Your task to perform on an android device: Go to Yahoo.com Image 0: 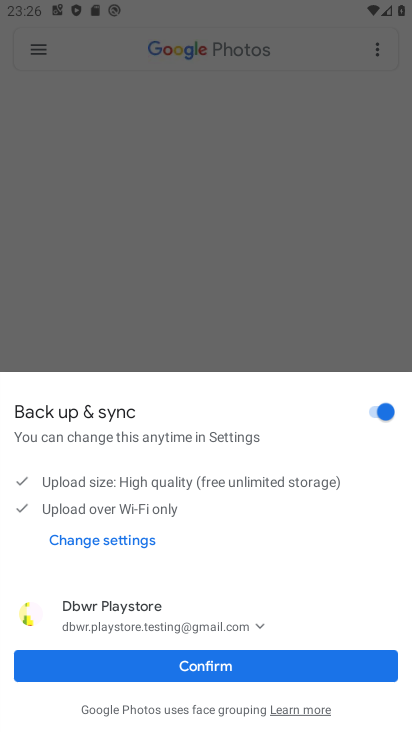
Step 0: press home button
Your task to perform on an android device: Go to Yahoo.com Image 1: 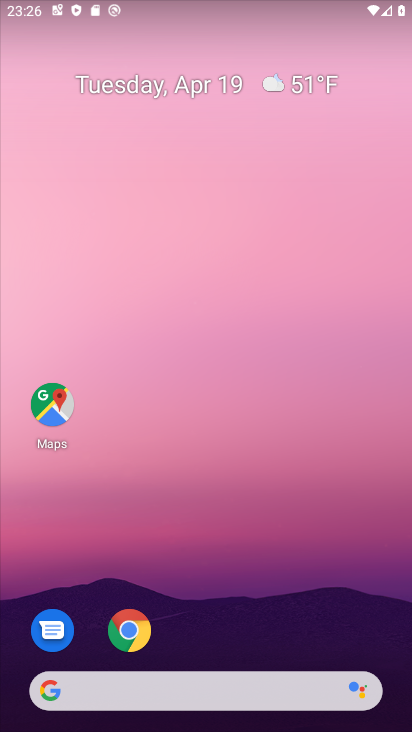
Step 1: click (145, 629)
Your task to perform on an android device: Go to Yahoo.com Image 2: 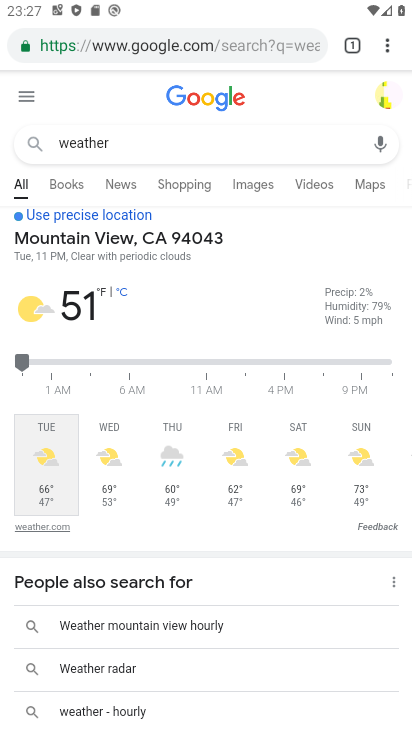
Step 2: click (239, 49)
Your task to perform on an android device: Go to Yahoo.com Image 3: 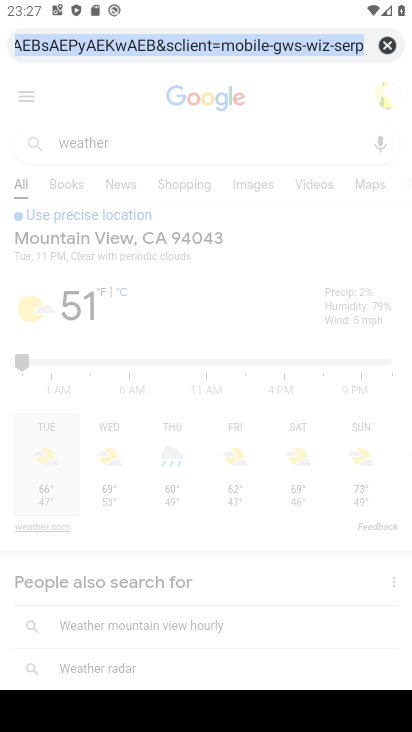
Step 3: click (378, 49)
Your task to perform on an android device: Go to Yahoo.com Image 4: 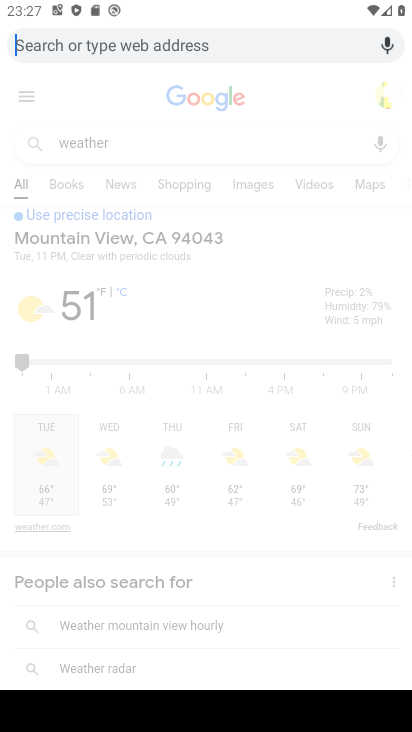
Step 4: type "yahoo.com"
Your task to perform on an android device: Go to Yahoo.com Image 5: 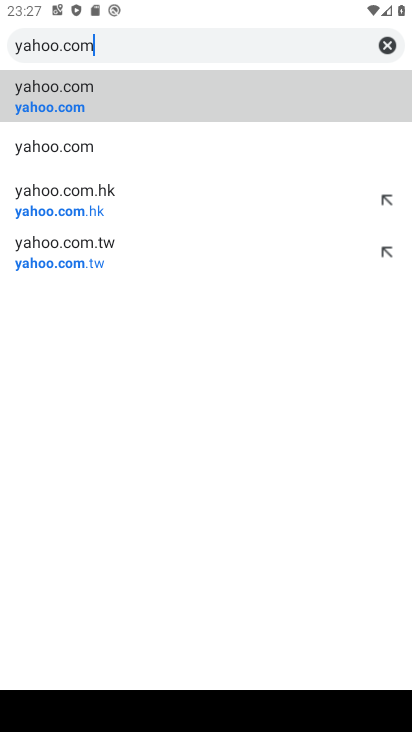
Step 5: click (146, 83)
Your task to perform on an android device: Go to Yahoo.com Image 6: 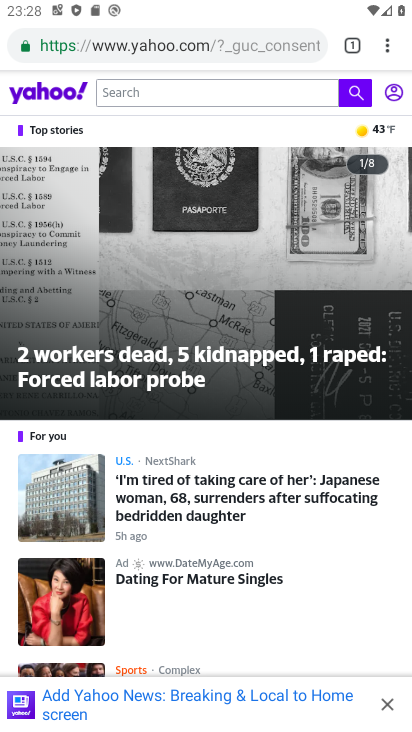
Step 6: task complete